Your task to perform on an android device: Search for "apple airpods" on target, select the first entry, and add it to the cart. Image 0: 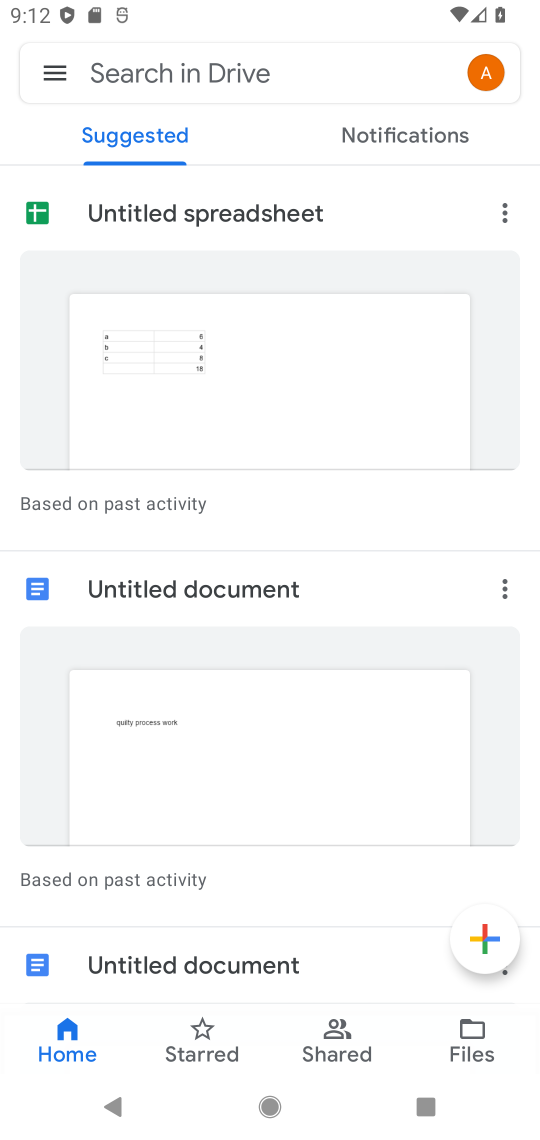
Step 0: press home button
Your task to perform on an android device: Search for "apple airpods" on target, select the first entry, and add it to the cart. Image 1: 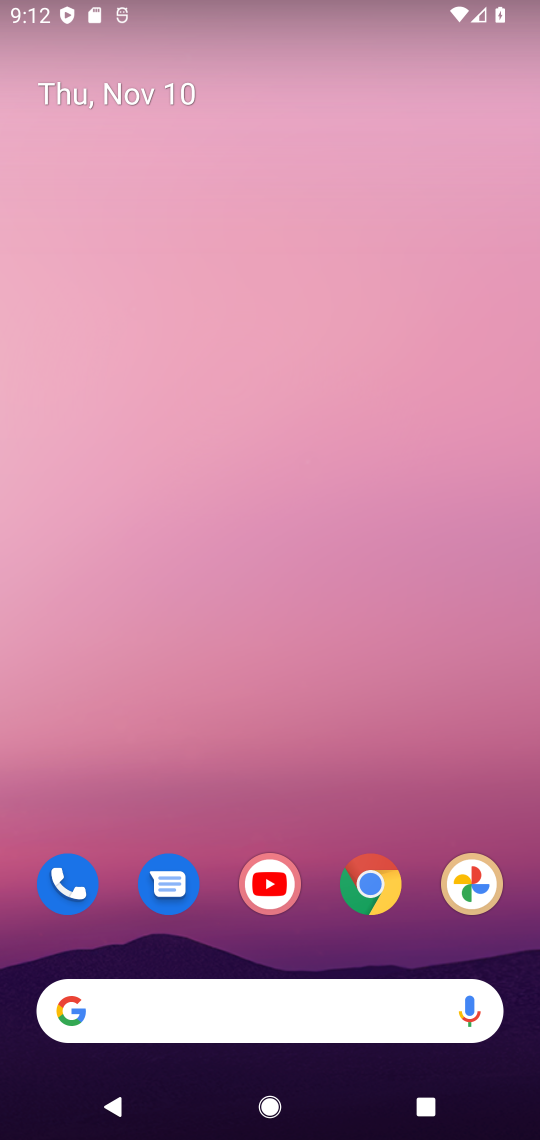
Step 1: click (299, 1009)
Your task to perform on an android device: Search for "apple airpods" on target, select the first entry, and add it to the cart. Image 2: 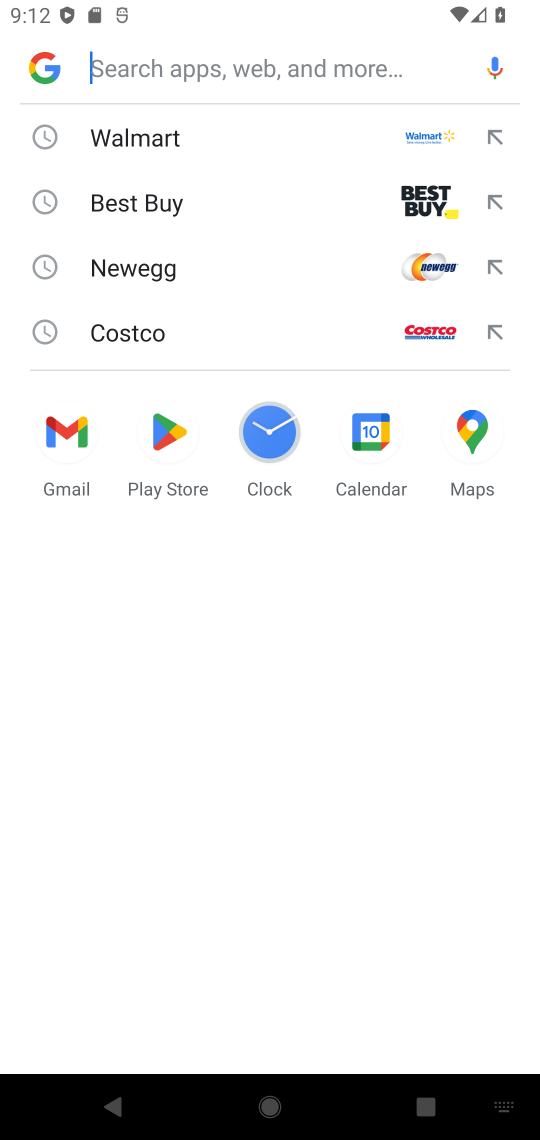
Step 2: type "target"
Your task to perform on an android device: Search for "apple airpods" on target, select the first entry, and add it to the cart. Image 3: 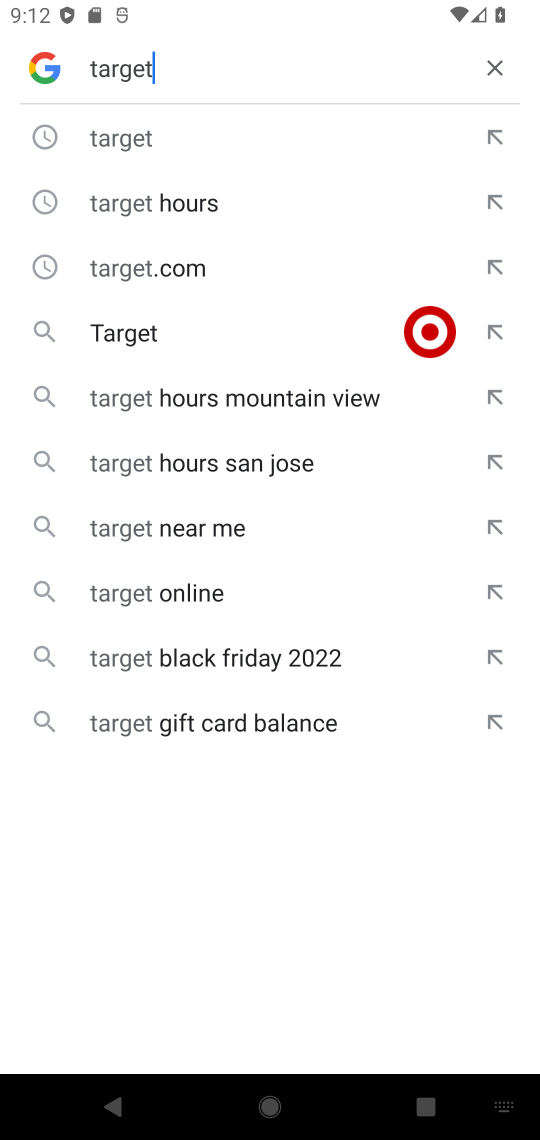
Step 3: click (123, 336)
Your task to perform on an android device: Search for "apple airpods" on target, select the first entry, and add it to the cart. Image 4: 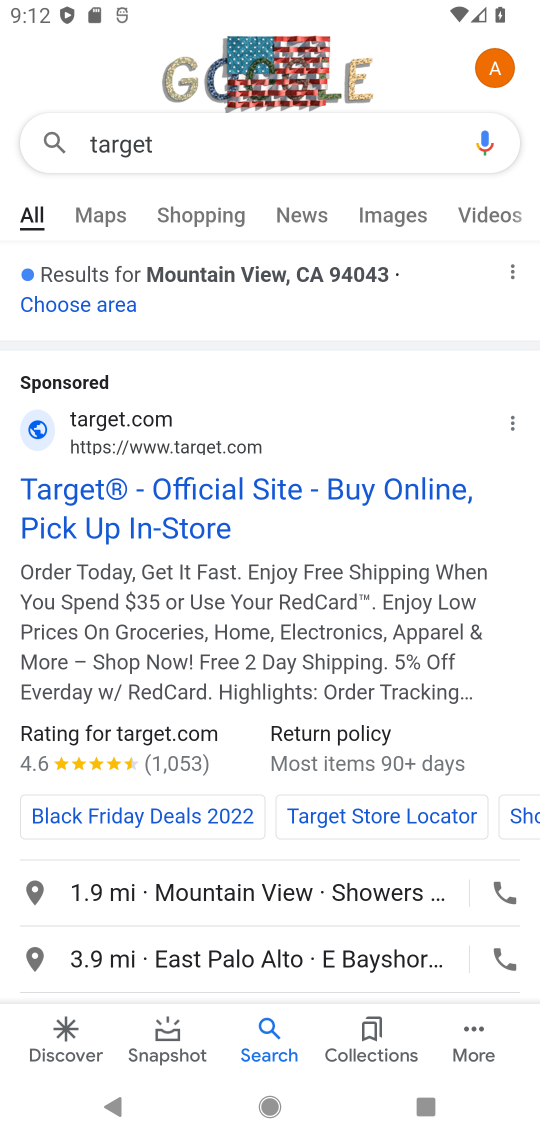
Step 4: click (91, 413)
Your task to perform on an android device: Search for "apple airpods" on target, select the first entry, and add it to the cart. Image 5: 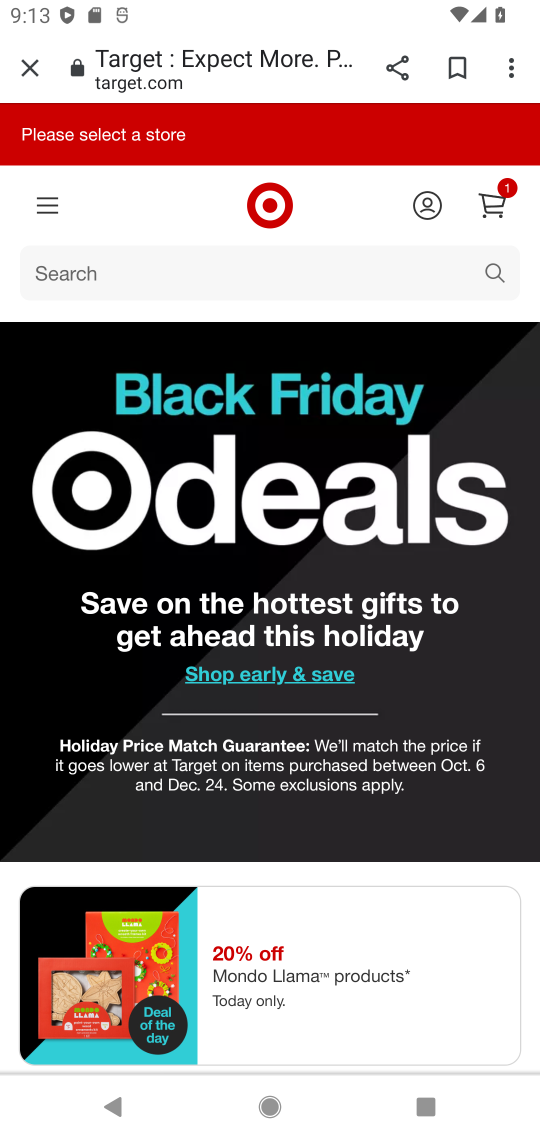
Step 5: click (207, 276)
Your task to perform on an android device: Search for "apple airpods" on target, select the first entry, and add it to the cart. Image 6: 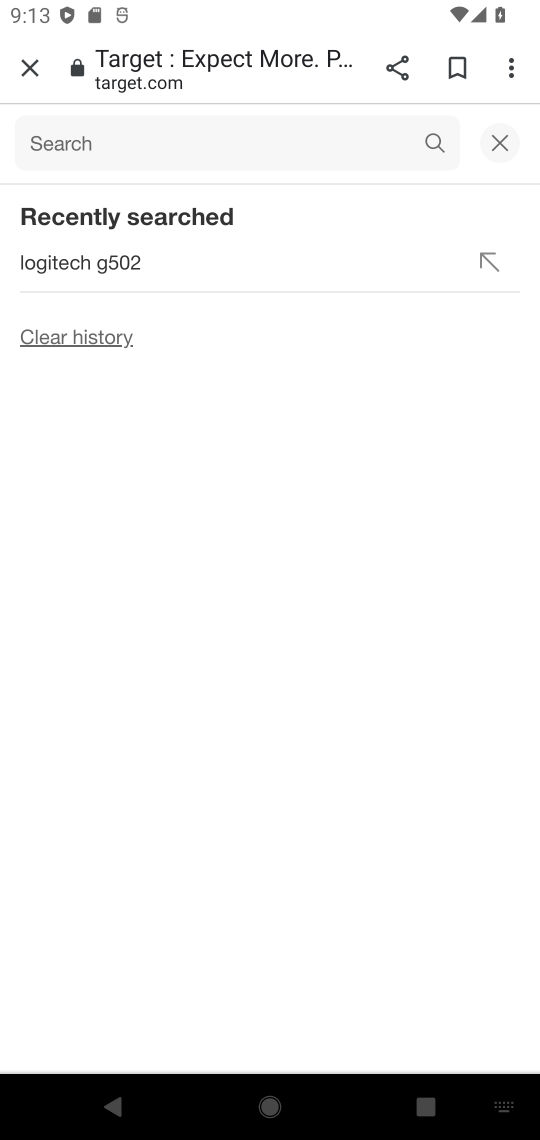
Step 6: type "apple airpods"
Your task to perform on an android device: Search for "apple airpods" on target, select the first entry, and add it to the cart. Image 7: 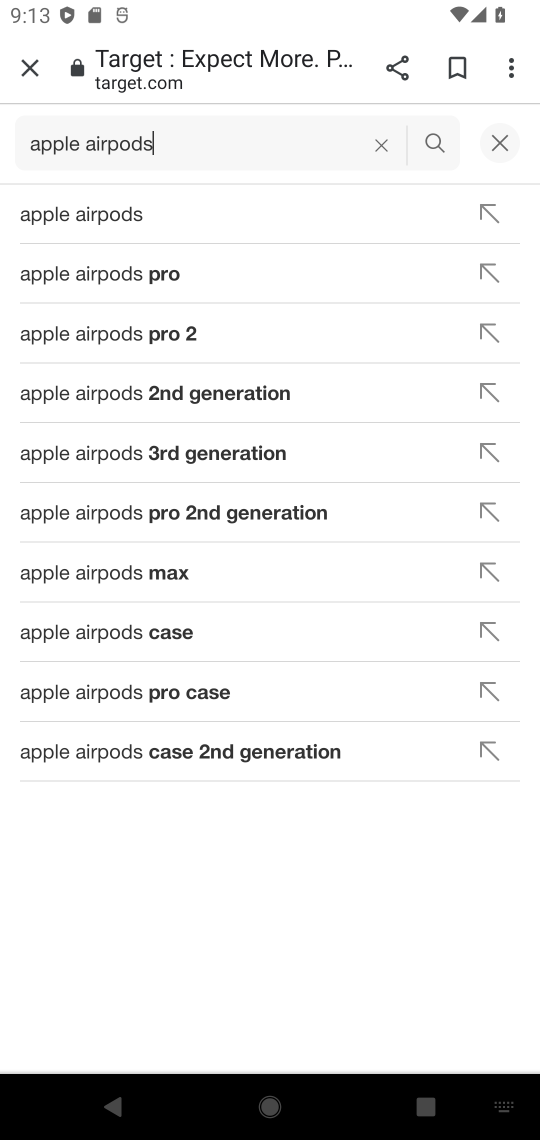
Step 7: click (80, 223)
Your task to perform on an android device: Search for "apple airpods" on target, select the first entry, and add it to the cart. Image 8: 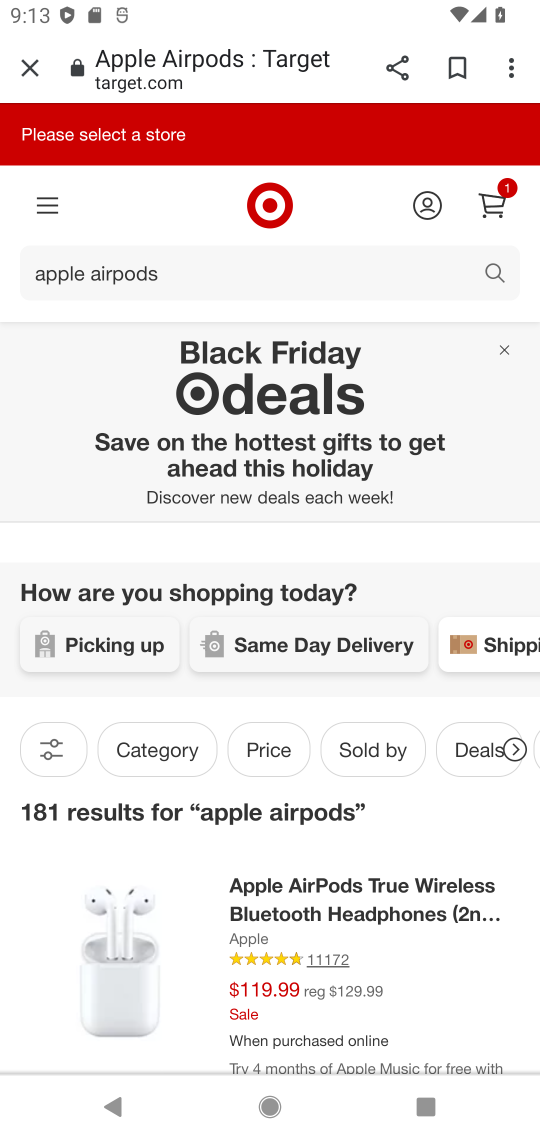
Step 8: drag from (254, 681) to (293, 452)
Your task to perform on an android device: Search for "apple airpods" on target, select the first entry, and add it to the cart. Image 9: 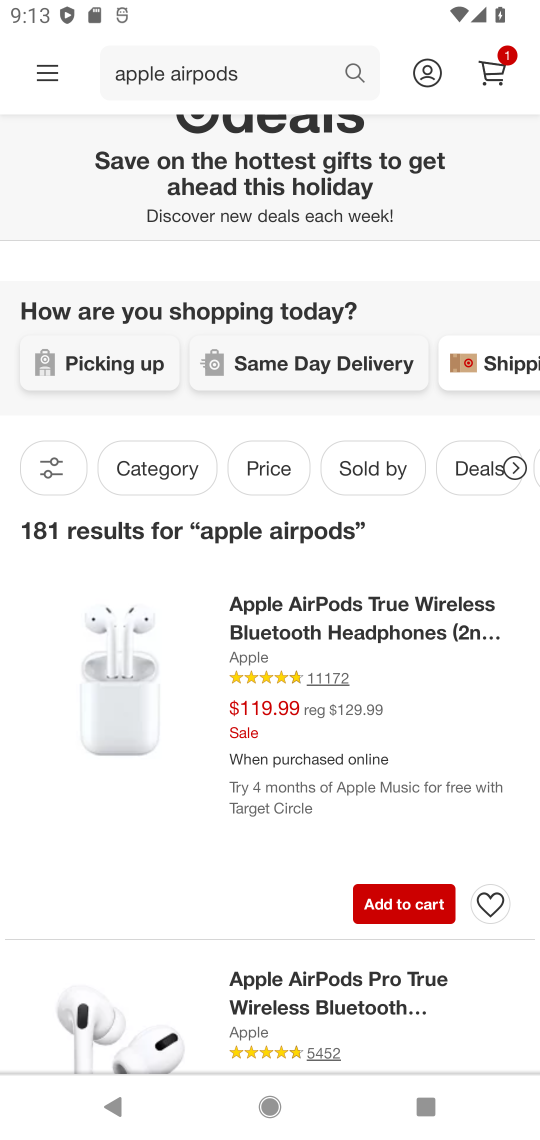
Step 9: click (378, 907)
Your task to perform on an android device: Search for "apple airpods" on target, select the first entry, and add it to the cart. Image 10: 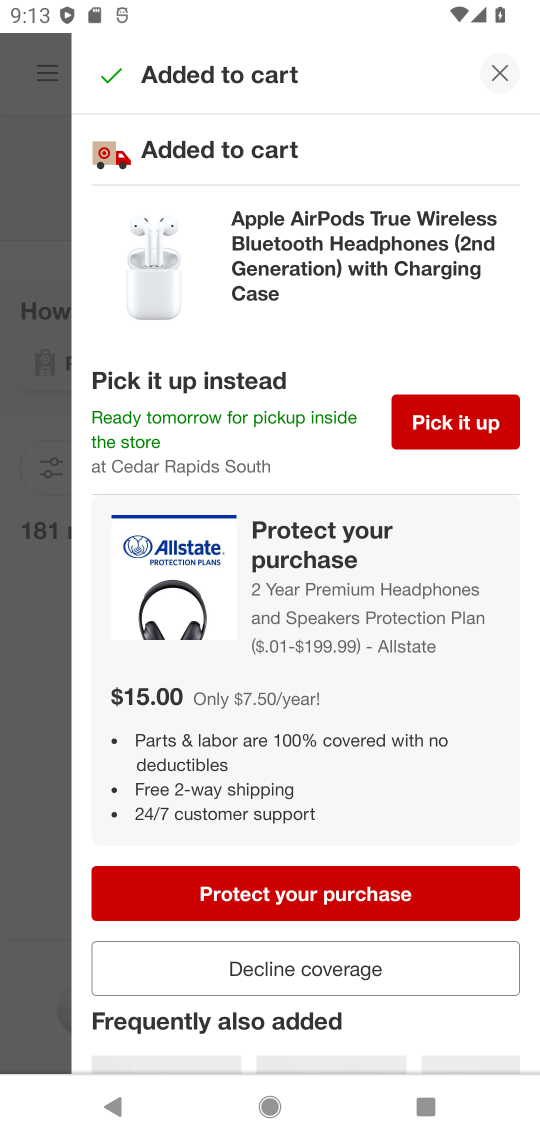
Step 10: click (366, 972)
Your task to perform on an android device: Search for "apple airpods" on target, select the first entry, and add it to the cart. Image 11: 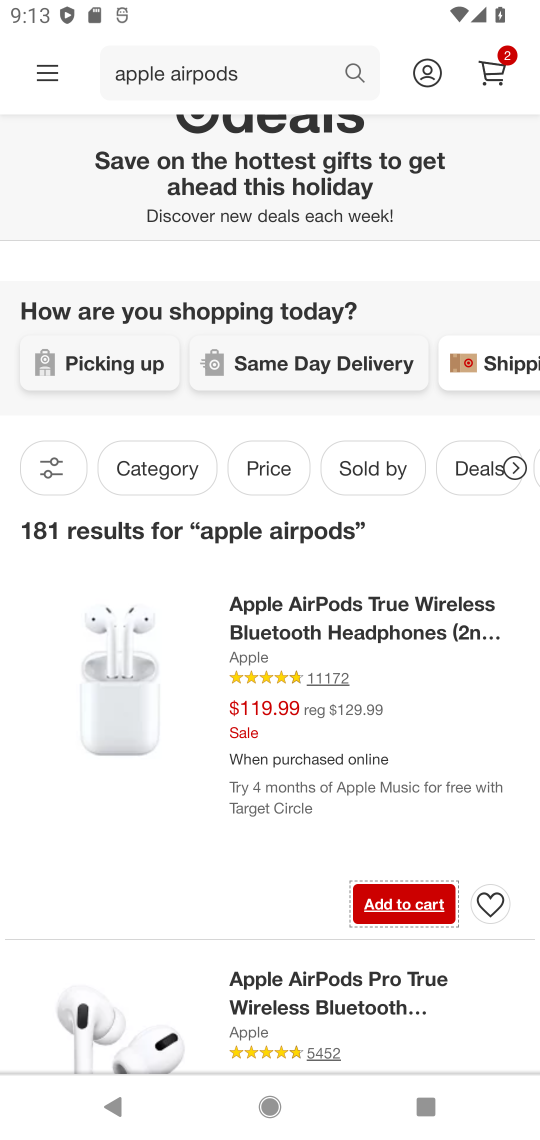
Step 11: task complete